Your task to perform on an android device: choose inbox layout in the gmail app Image 0: 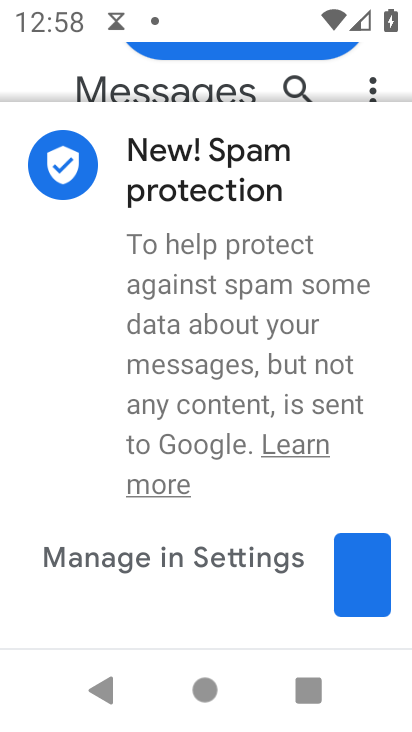
Step 0: press back button
Your task to perform on an android device: choose inbox layout in the gmail app Image 1: 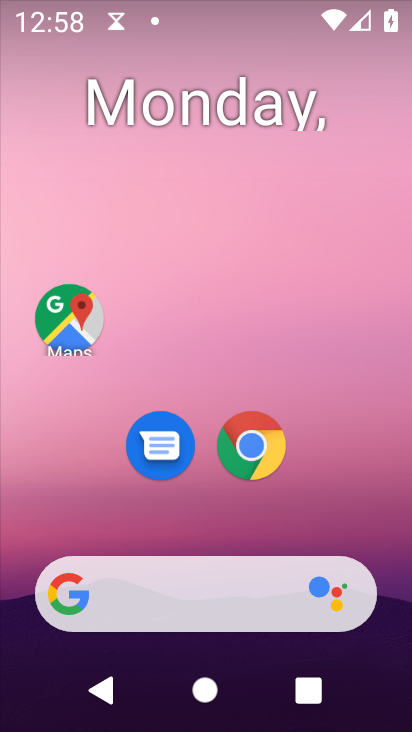
Step 1: drag from (392, 446) to (279, 29)
Your task to perform on an android device: choose inbox layout in the gmail app Image 2: 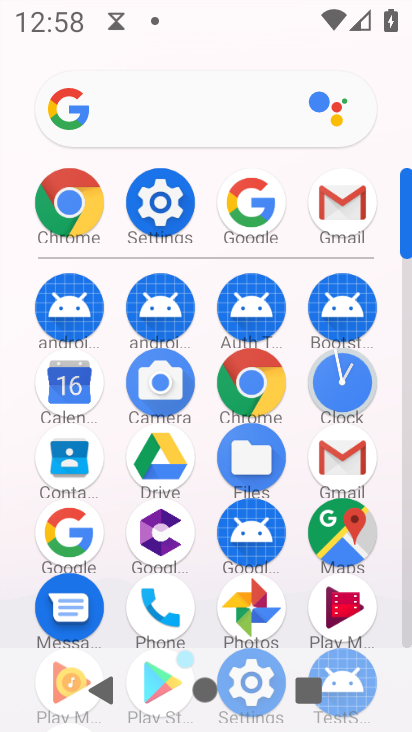
Step 2: click (345, 461)
Your task to perform on an android device: choose inbox layout in the gmail app Image 3: 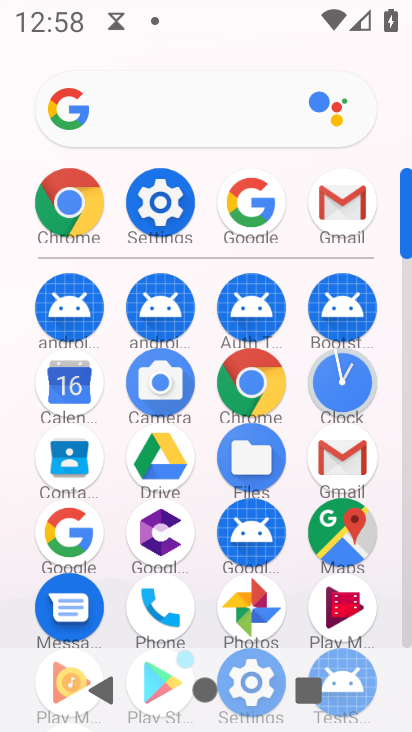
Step 3: click (345, 461)
Your task to perform on an android device: choose inbox layout in the gmail app Image 4: 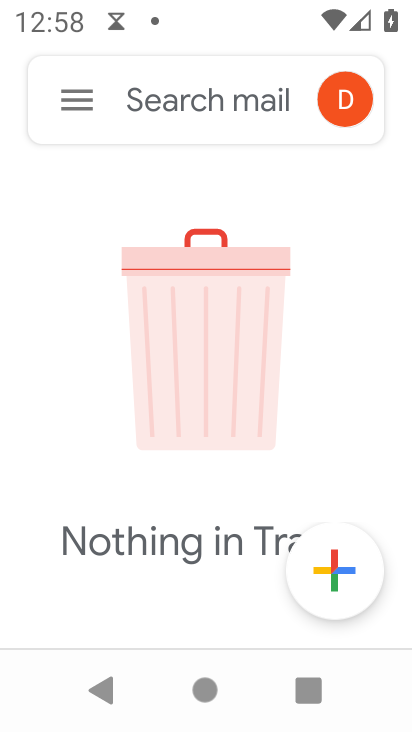
Step 4: press back button
Your task to perform on an android device: choose inbox layout in the gmail app Image 5: 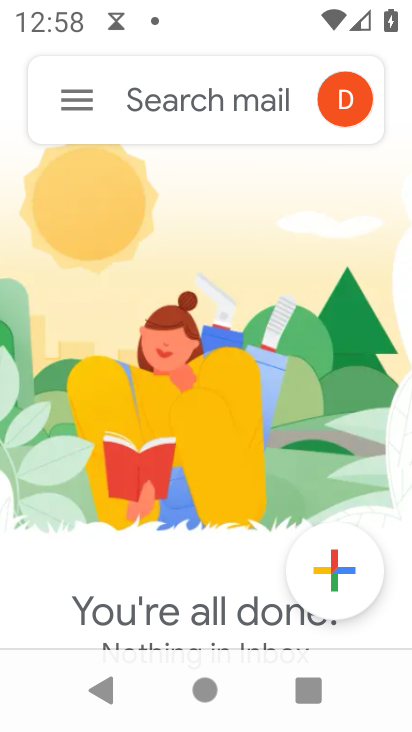
Step 5: drag from (267, 608) to (195, 208)
Your task to perform on an android device: choose inbox layout in the gmail app Image 6: 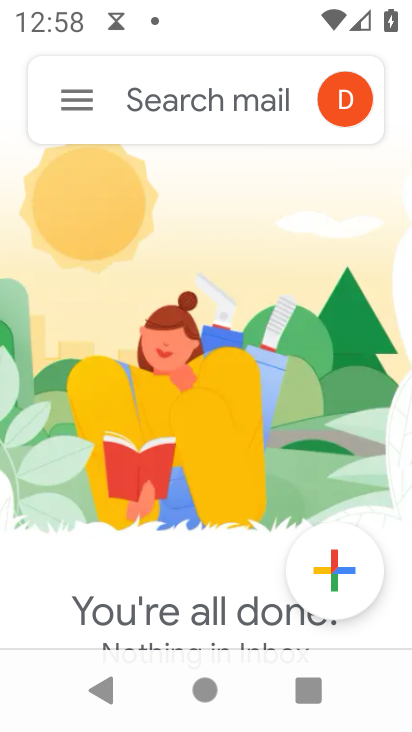
Step 6: drag from (268, 543) to (214, 173)
Your task to perform on an android device: choose inbox layout in the gmail app Image 7: 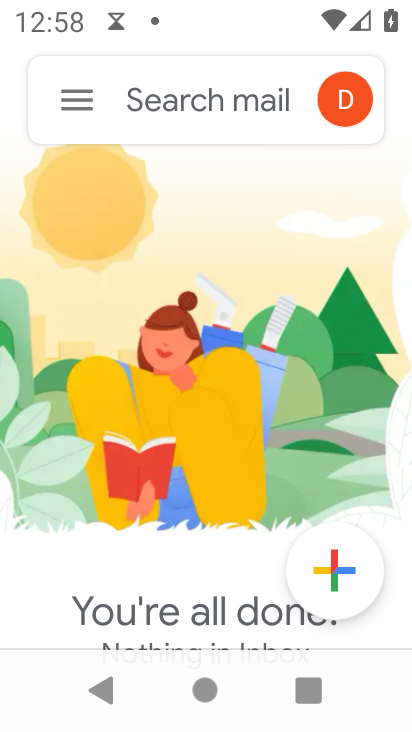
Step 7: drag from (272, 642) to (203, 170)
Your task to perform on an android device: choose inbox layout in the gmail app Image 8: 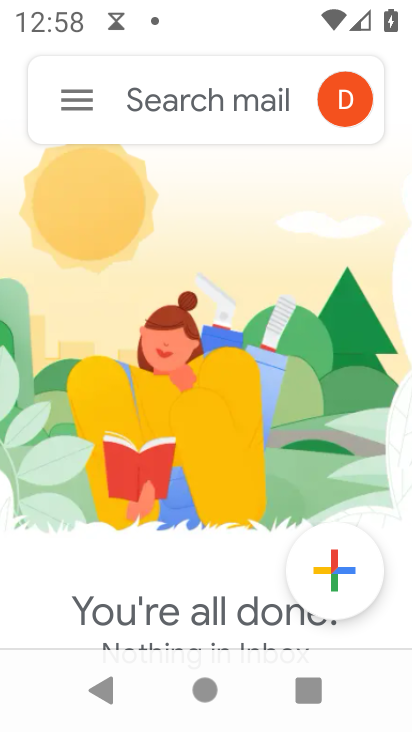
Step 8: drag from (244, 372) to (177, 139)
Your task to perform on an android device: choose inbox layout in the gmail app Image 9: 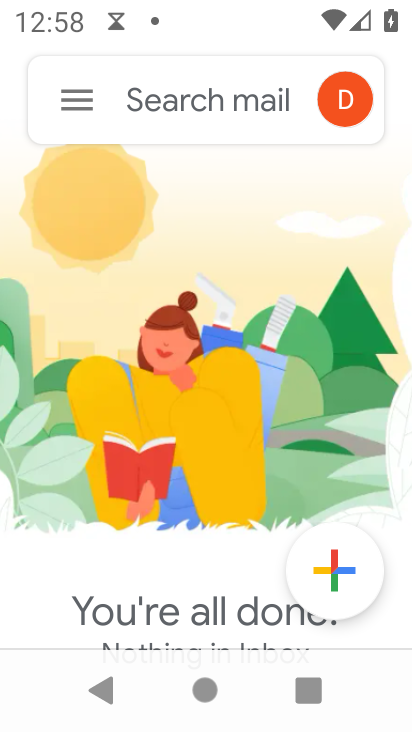
Step 9: drag from (207, 435) to (179, 280)
Your task to perform on an android device: choose inbox layout in the gmail app Image 10: 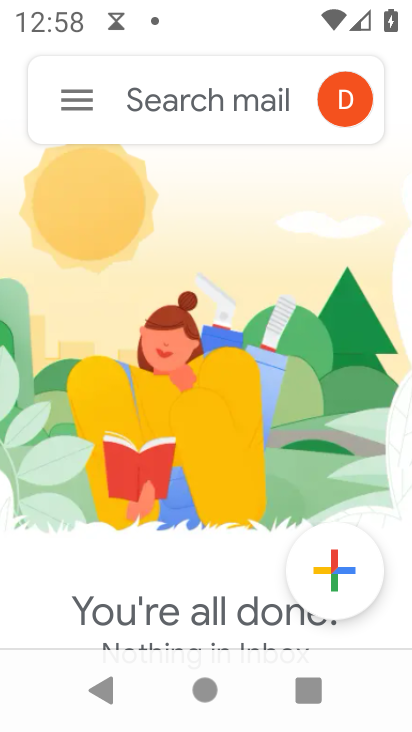
Step 10: drag from (205, 547) to (199, 136)
Your task to perform on an android device: choose inbox layout in the gmail app Image 11: 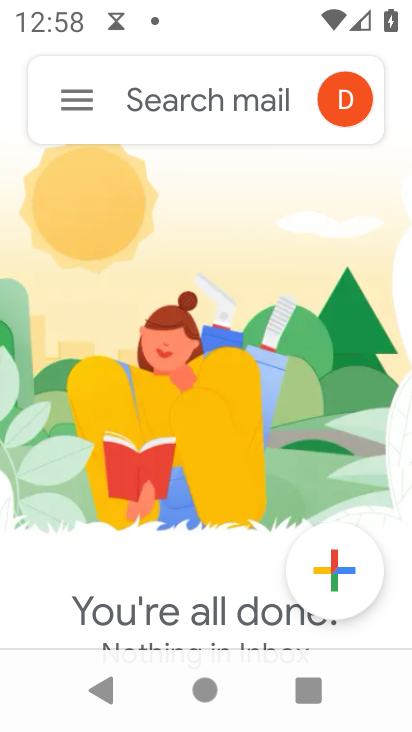
Step 11: drag from (252, 392) to (199, 257)
Your task to perform on an android device: choose inbox layout in the gmail app Image 12: 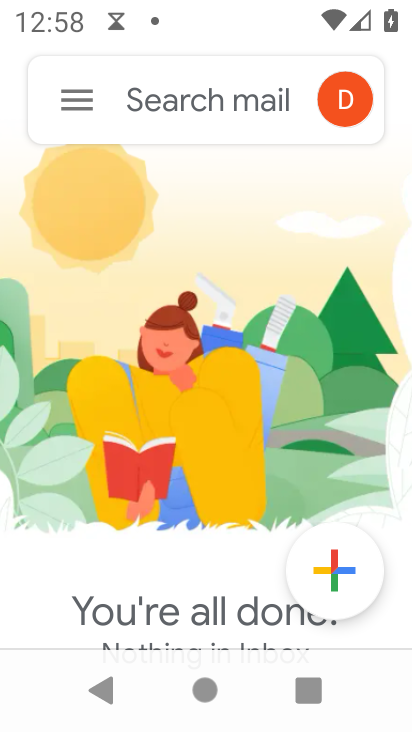
Step 12: drag from (237, 420) to (197, 127)
Your task to perform on an android device: choose inbox layout in the gmail app Image 13: 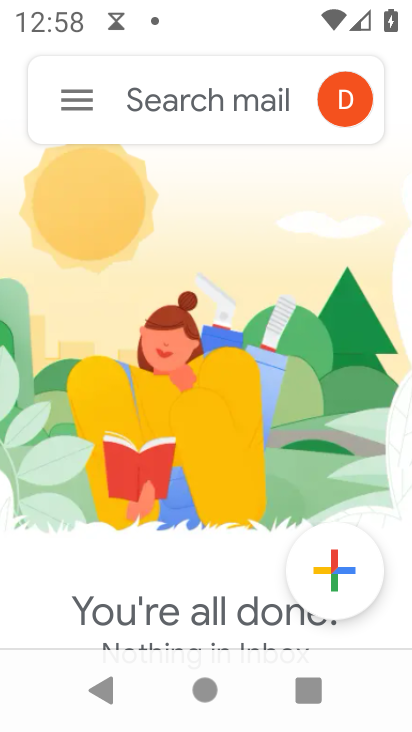
Step 13: drag from (232, 337) to (206, 127)
Your task to perform on an android device: choose inbox layout in the gmail app Image 14: 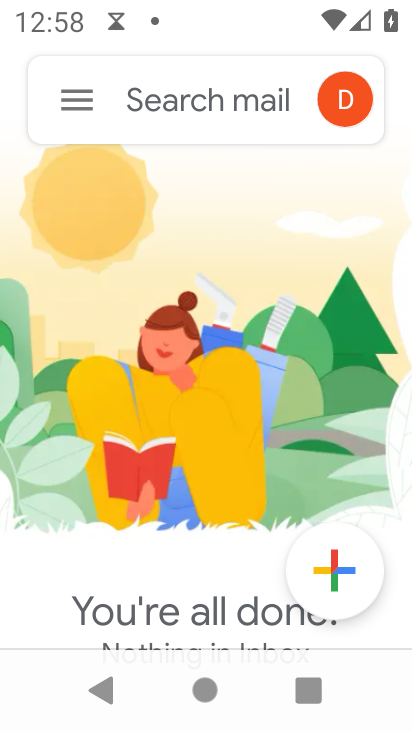
Step 14: drag from (221, 451) to (184, 185)
Your task to perform on an android device: choose inbox layout in the gmail app Image 15: 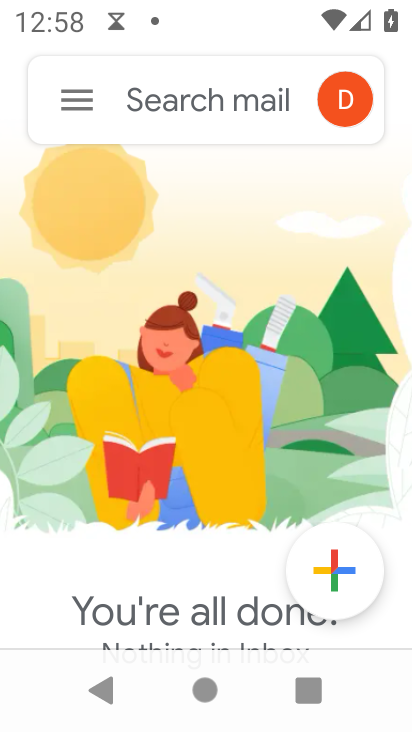
Step 15: drag from (185, 379) to (155, 99)
Your task to perform on an android device: choose inbox layout in the gmail app Image 16: 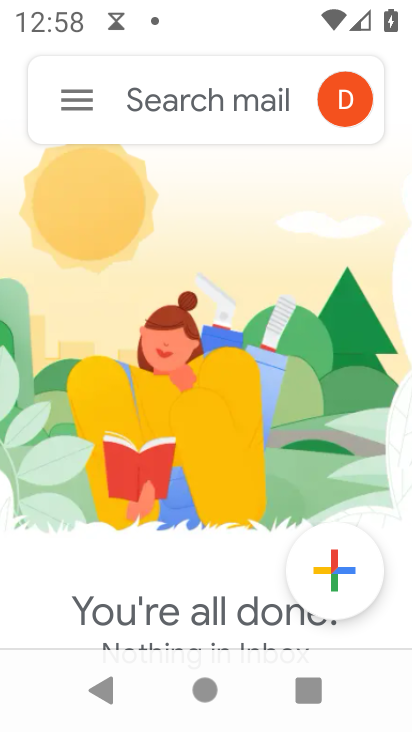
Step 16: drag from (185, 377) to (133, 102)
Your task to perform on an android device: choose inbox layout in the gmail app Image 17: 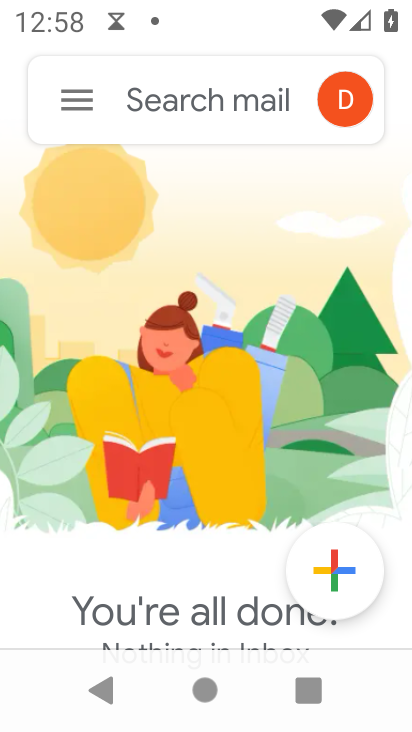
Step 17: drag from (179, 357) to (113, 72)
Your task to perform on an android device: choose inbox layout in the gmail app Image 18: 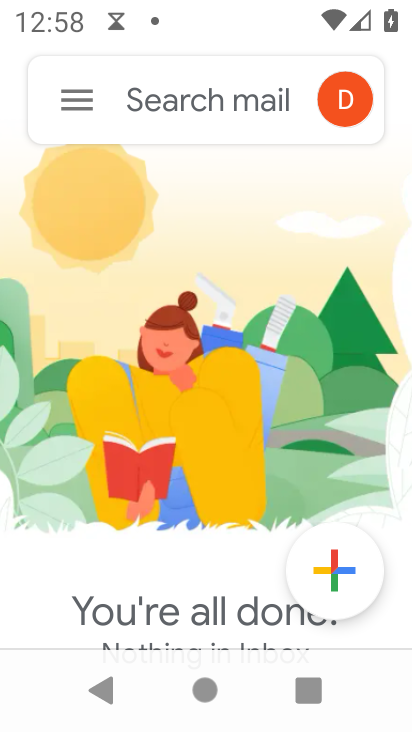
Step 18: drag from (210, 465) to (134, 48)
Your task to perform on an android device: choose inbox layout in the gmail app Image 19: 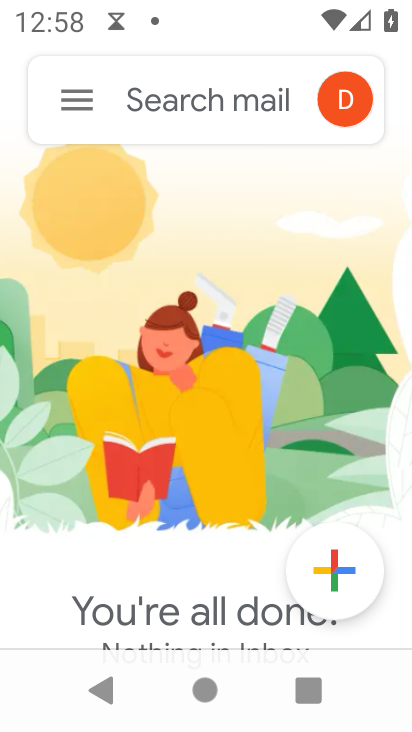
Step 19: drag from (207, 450) to (168, 56)
Your task to perform on an android device: choose inbox layout in the gmail app Image 20: 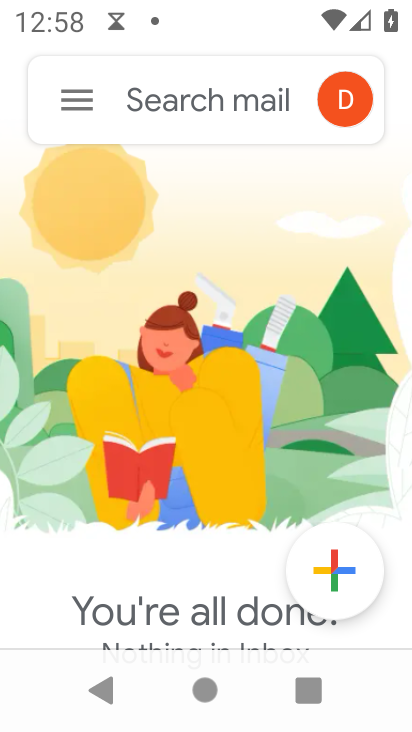
Step 20: drag from (161, 443) to (139, 153)
Your task to perform on an android device: choose inbox layout in the gmail app Image 21: 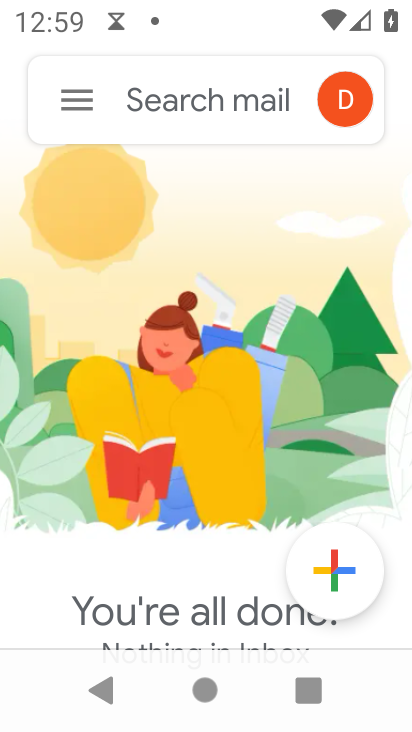
Step 21: drag from (176, 266) to (204, 7)
Your task to perform on an android device: choose inbox layout in the gmail app Image 22: 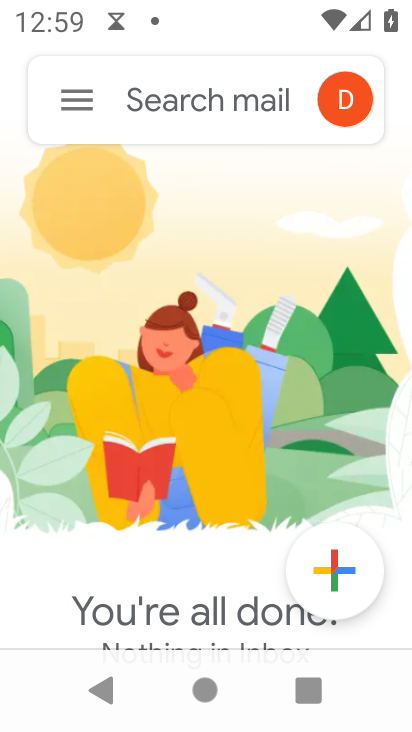
Step 22: drag from (220, 398) to (218, 154)
Your task to perform on an android device: choose inbox layout in the gmail app Image 23: 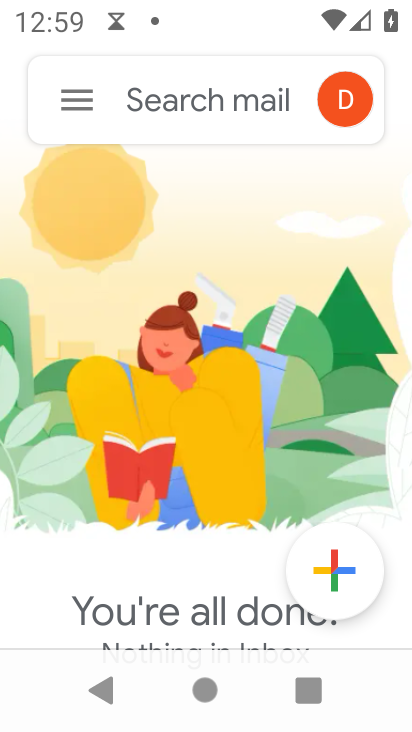
Step 23: drag from (230, 393) to (272, 37)
Your task to perform on an android device: choose inbox layout in the gmail app Image 24: 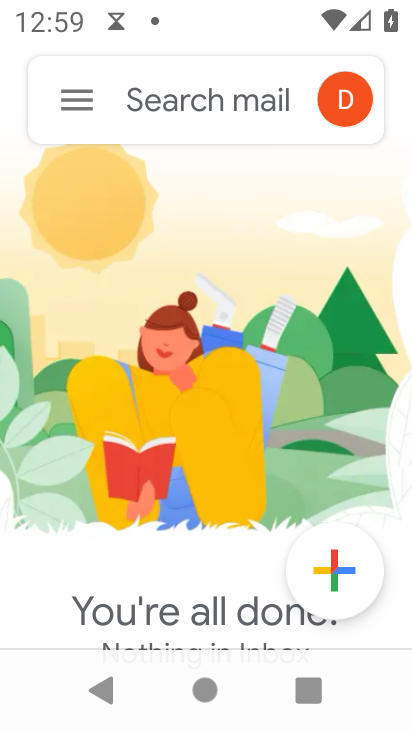
Step 24: drag from (237, 387) to (237, 93)
Your task to perform on an android device: choose inbox layout in the gmail app Image 25: 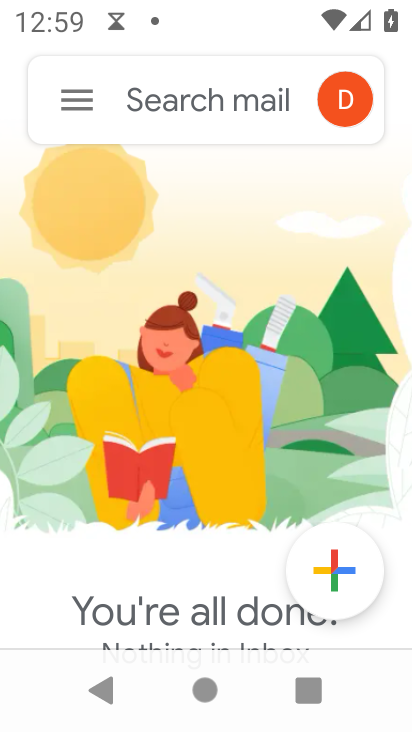
Step 25: drag from (239, 393) to (228, 200)
Your task to perform on an android device: choose inbox layout in the gmail app Image 26: 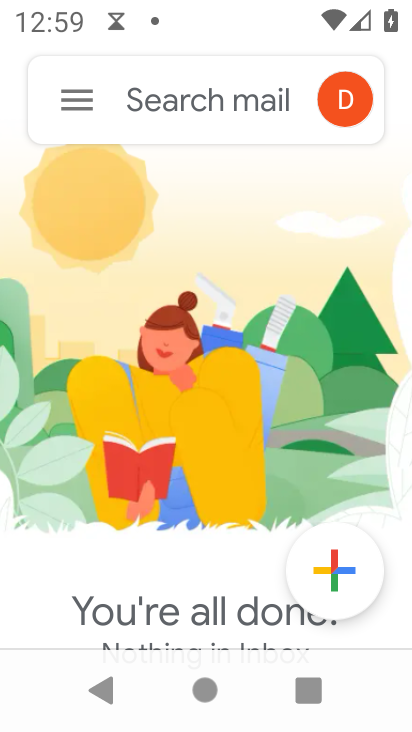
Step 26: click (77, 107)
Your task to perform on an android device: choose inbox layout in the gmail app Image 27: 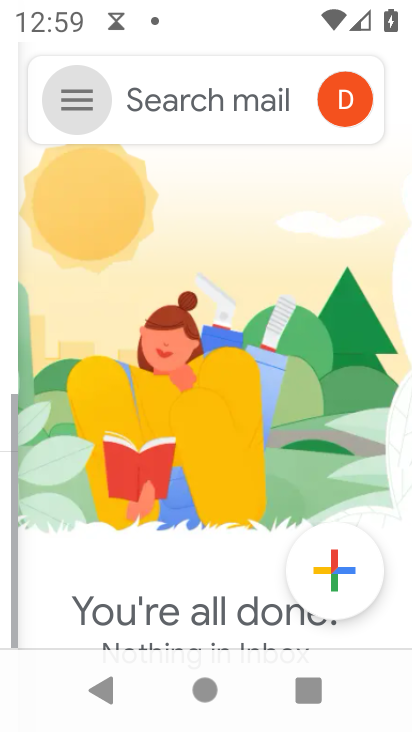
Step 27: click (77, 107)
Your task to perform on an android device: choose inbox layout in the gmail app Image 28: 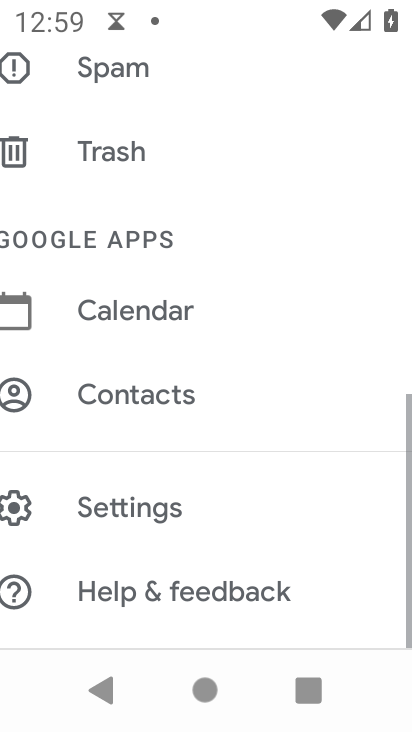
Step 28: click (77, 107)
Your task to perform on an android device: choose inbox layout in the gmail app Image 29: 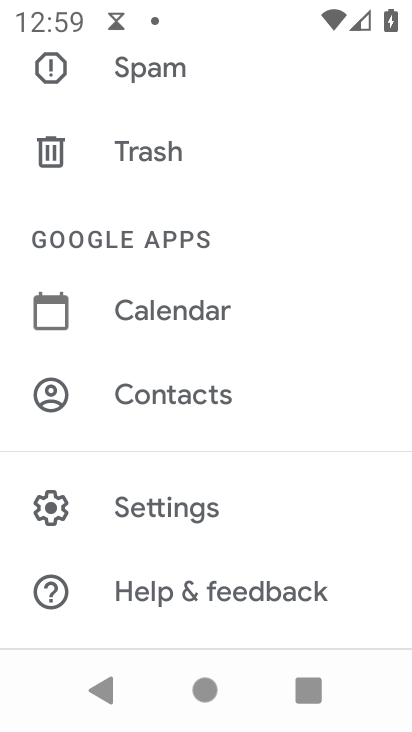
Step 29: click (77, 107)
Your task to perform on an android device: choose inbox layout in the gmail app Image 30: 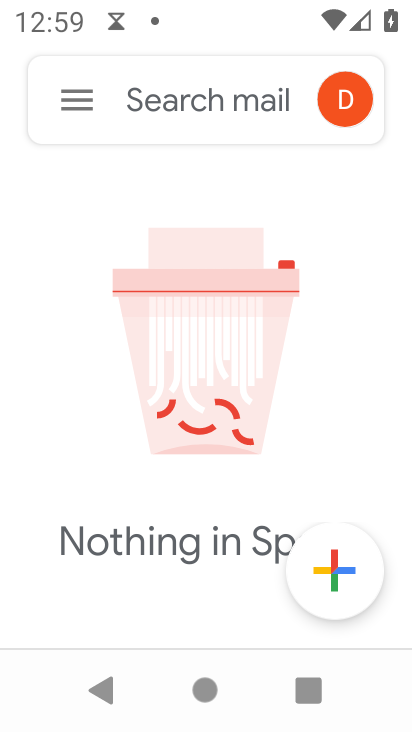
Step 30: click (82, 98)
Your task to perform on an android device: choose inbox layout in the gmail app Image 31: 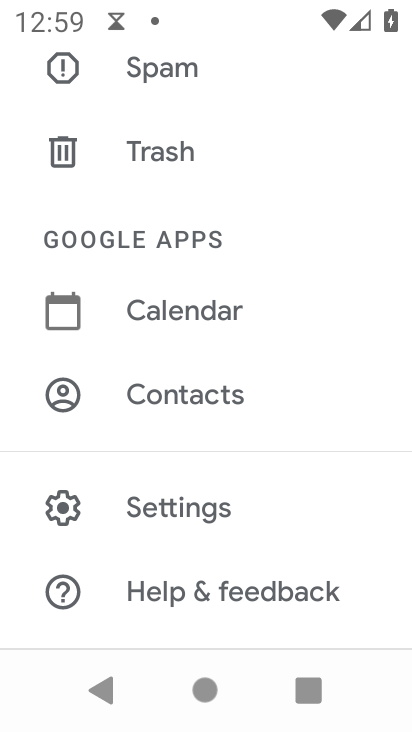
Step 31: drag from (166, 171) to (172, 491)
Your task to perform on an android device: choose inbox layout in the gmail app Image 32: 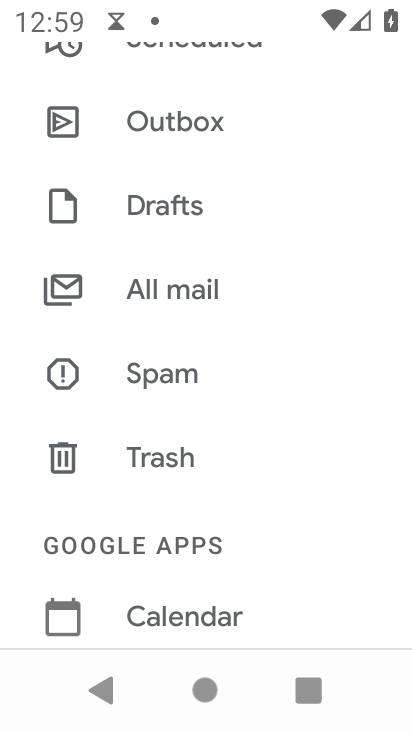
Step 32: click (174, 291)
Your task to perform on an android device: choose inbox layout in the gmail app Image 33: 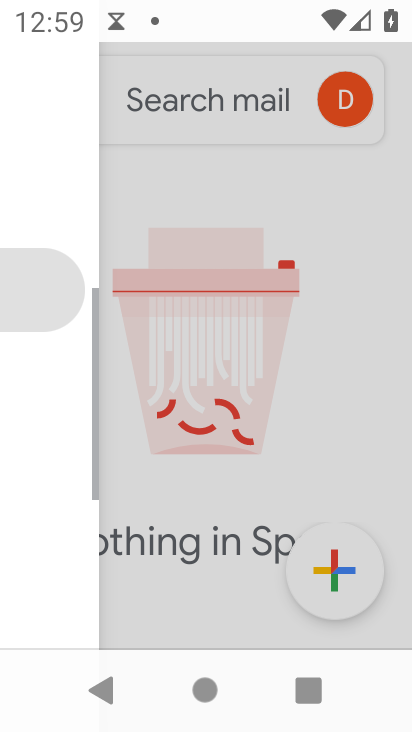
Step 33: click (175, 290)
Your task to perform on an android device: choose inbox layout in the gmail app Image 34: 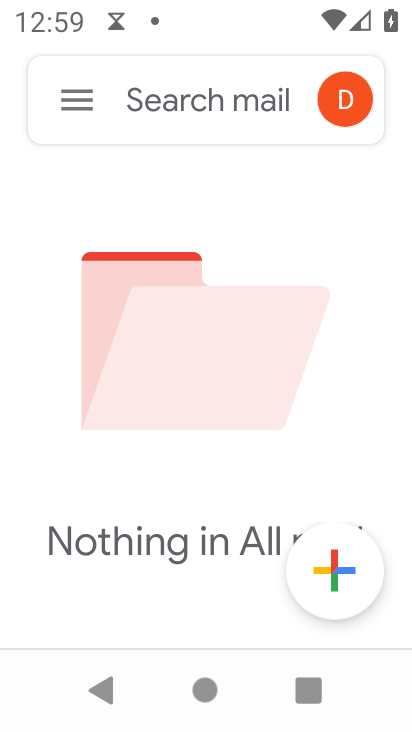
Step 34: task complete